Your task to perform on an android device: Search for Italian restaurants on Maps Image 0: 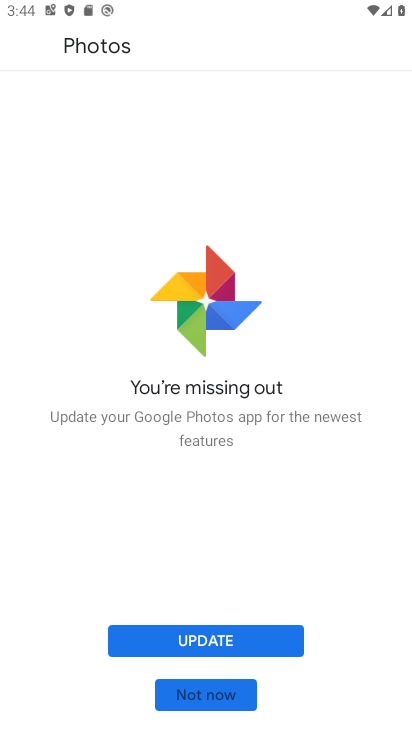
Step 0: press back button
Your task to perform on an android device: Search for Italian restaurants on Maps Image 1: 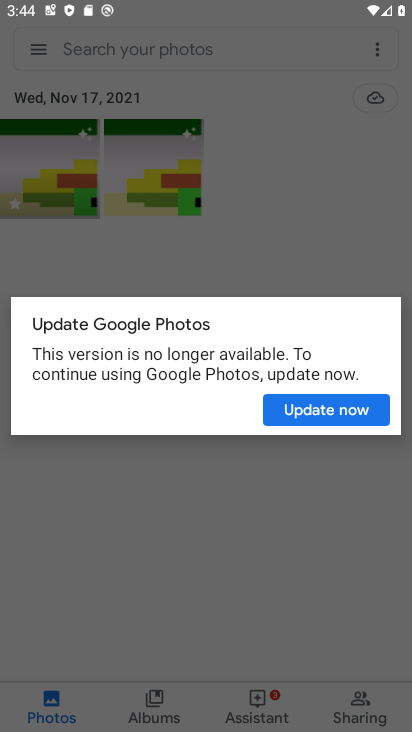
Step 1: press back button
Your task to perform on an android device: Search for Italian restaurants on Maps Image 2: 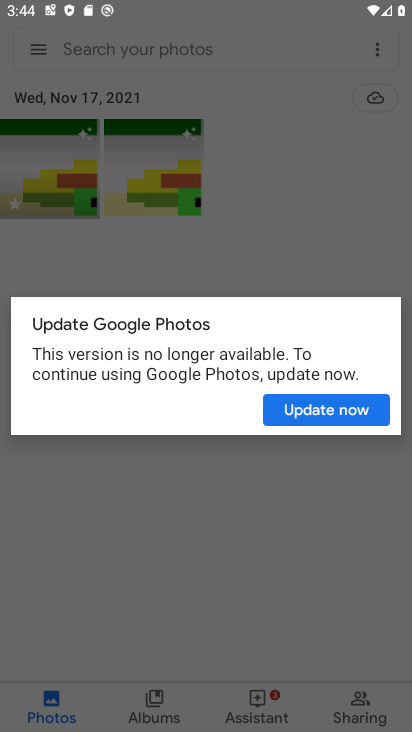
Step 2: press home button
Your task to perform on an android device: Search for Italian restaurants on Maps Image 3: 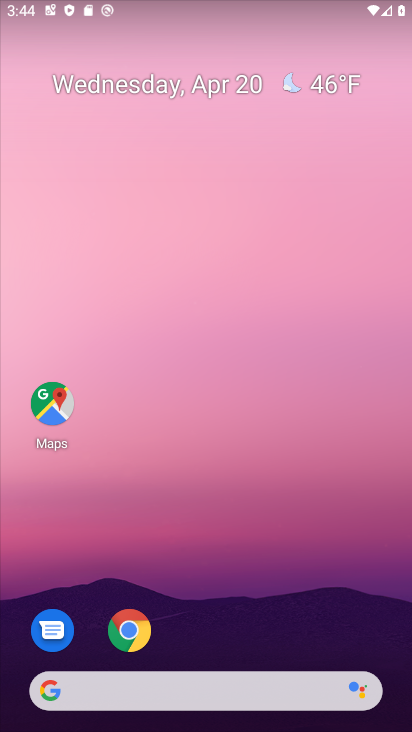
Step 3: click (55, 405)
Your task to perform on an android device: Search for Italian restaurants on Maps Image 4: 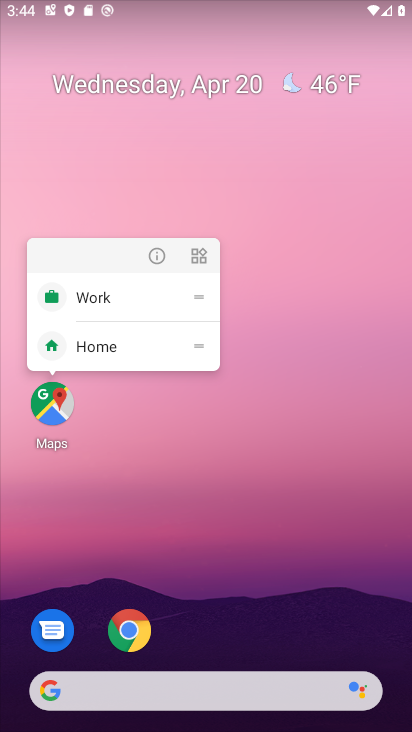
Step 4: click (54, 404)
Your task to perform on an android device: Search for Italian restaurants on Maps Image 5: 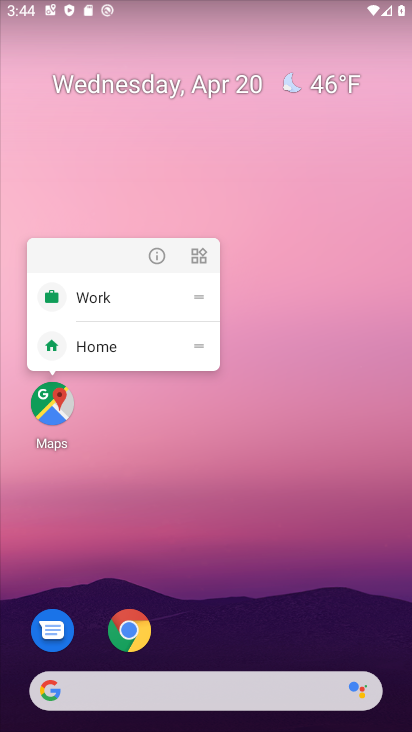
Step 5: click (48, 402)
Your task to perform on an android device: Search for Italian restaurants on Maps Image 6: 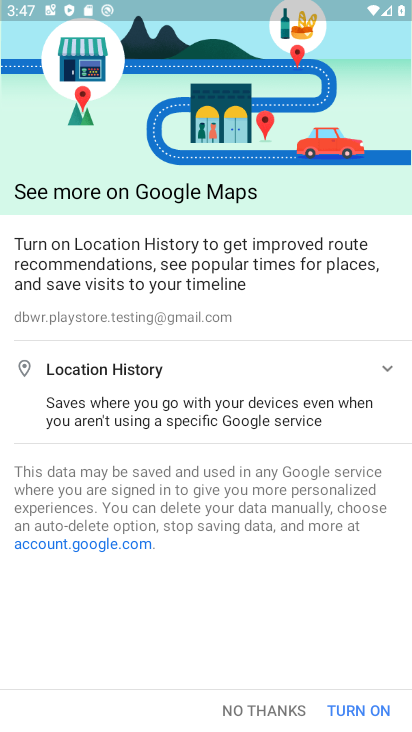
Step 6: click (265, 709)
Your task to perform on an android device: Search for Italian restaurants on Maps Image 7: 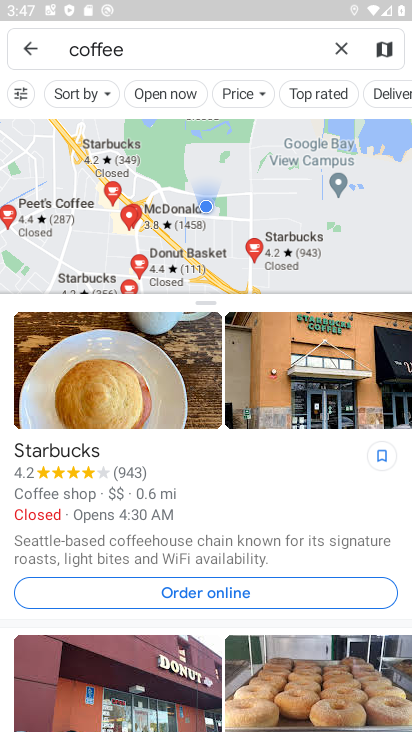
Step 7: click (344, 53)
Your task to perform on an android device: Search for Italian restaurants on Maps Image 8: 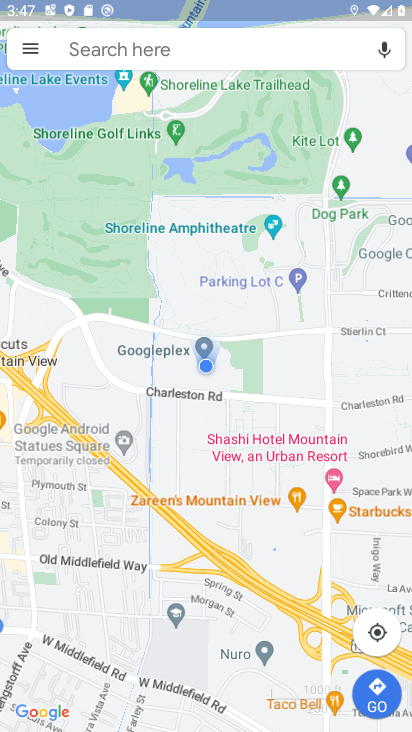
Step 8: click (153, 45)
Your task to perform on an android device: Search for Italian restaurants on Maps Image 9: 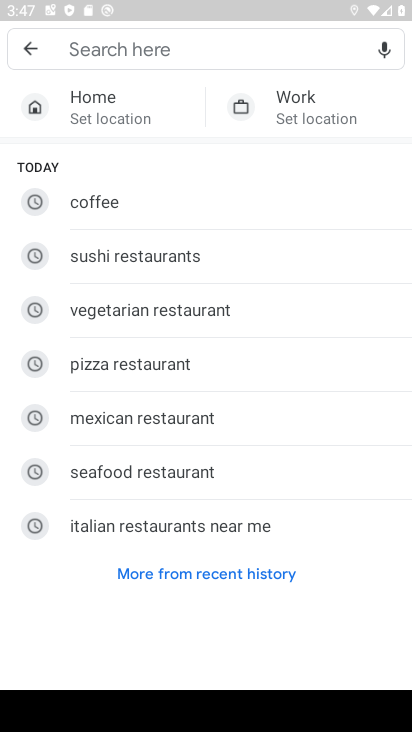
Step 9: click (140, 522)
Your task to perform on an android device: Search for Italian restaurants on Maps Image 10: 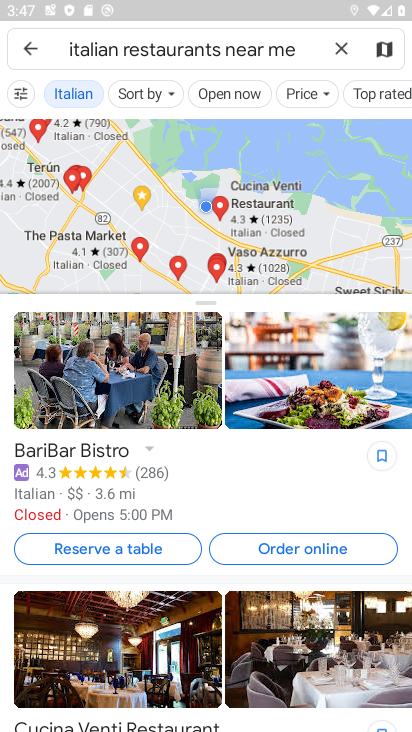
Step 10: task complete